Your task to perform on an android device: open a bookmark in the chrome app Image 0: 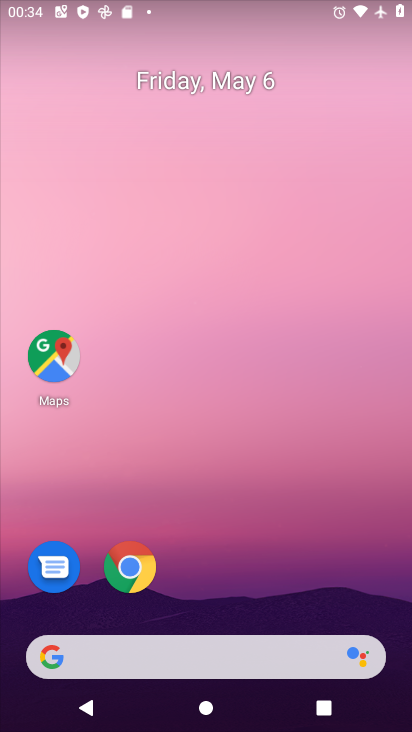
Step 0: click (118, 571)
Your task to perform on an android device: open a bookmark in the chrome app Image 1: 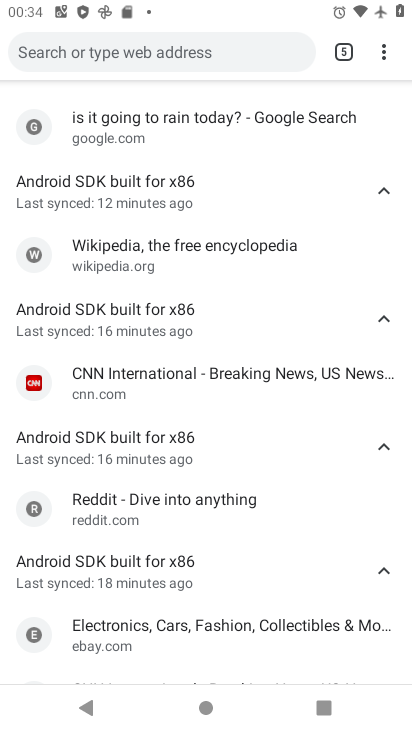
Step 1: click (387, 54)
Your task to perform on an android device: open a bookmark in the chrome app Image 2: 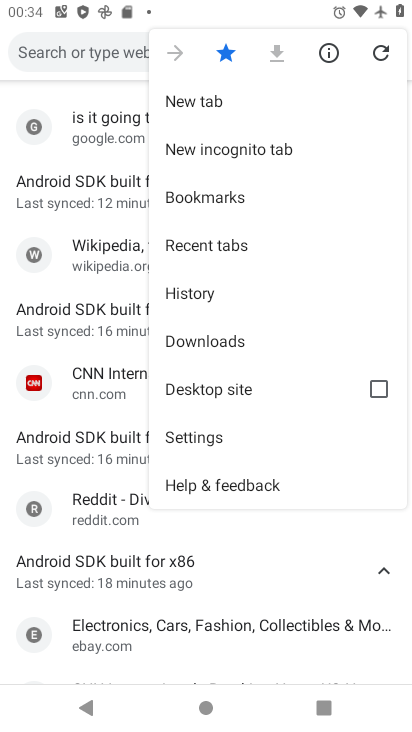
Step 2: click (229, 198)
Your task to perform on an android device: open a bookmark in the chrome app Image 3: 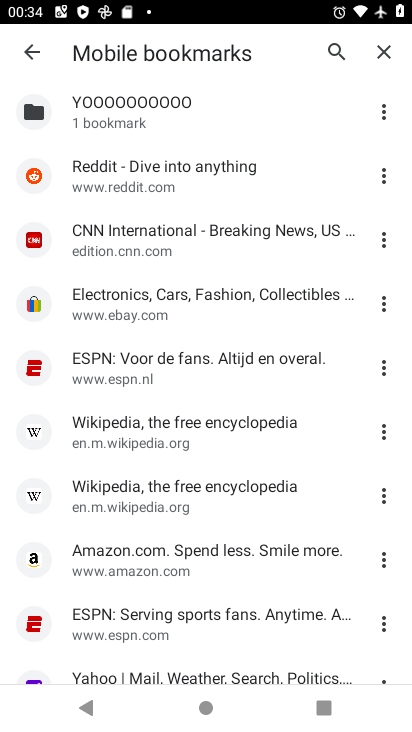
Step 3: click (145, 251)
Your task to perform on an android device: open a bookmark in the chrome app Image 4: 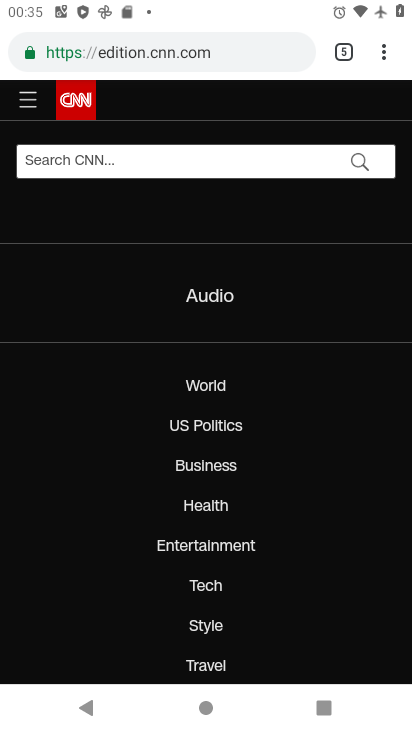
Step 4: task complete